Your task to perform on an android device: Show me the alarms in the clock app Image 0: 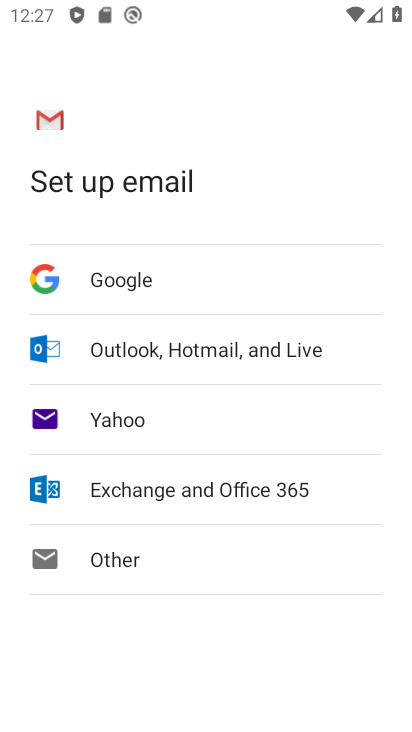
Step 0: press home button
Your task to perform on an android device: Show me the alarms in the clock app Image 1: 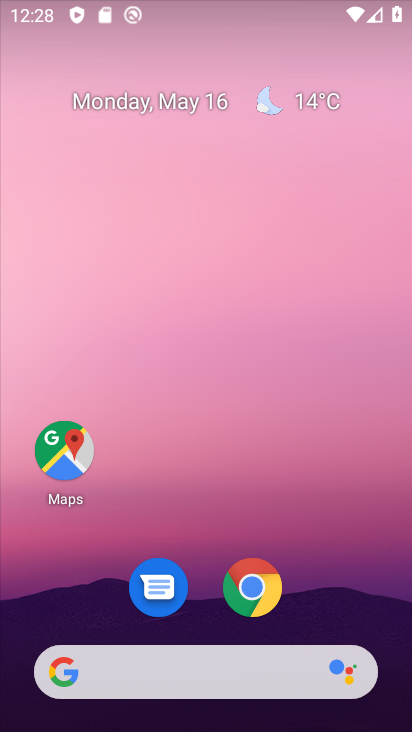
Step 1: drag from (219, 723) to (209, 229)
Your task to perform on an android device: Show me the alarms in the clock app Image 2: 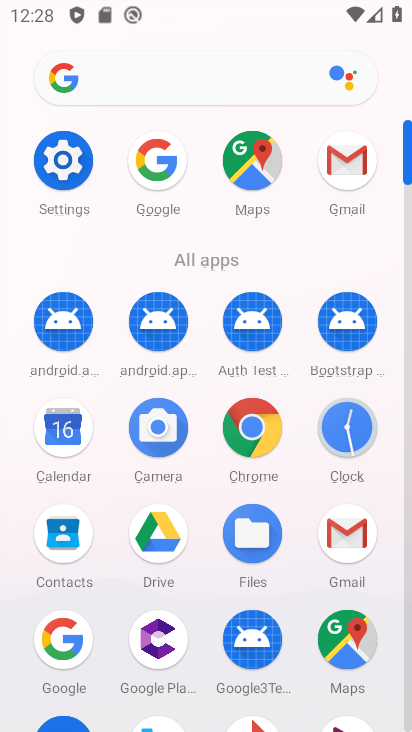
Step 2: click (349, 422)
Your task to perform on an android device: Show me the alarms in the clock app Image 3: 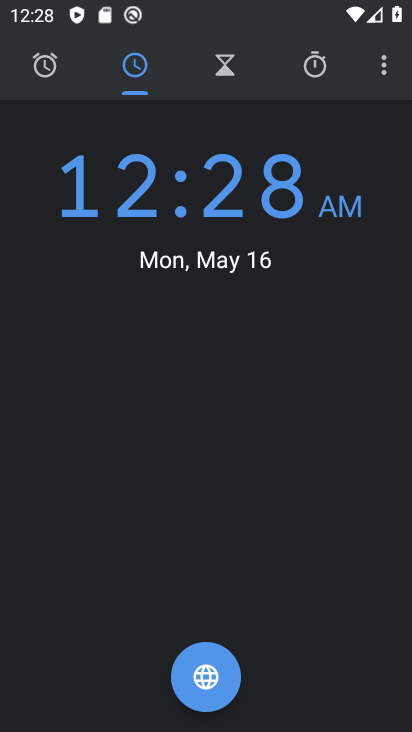
Step 3: click (48, 62)
Your task to perform on an android device: Show me the alarms in the clock app Image 4: 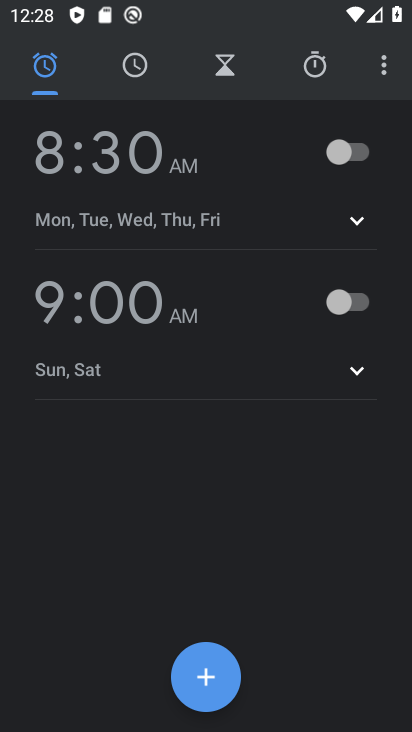
Step 4: task complete